Your task to perform on an android device: add a contact in the contacts app Image 0: 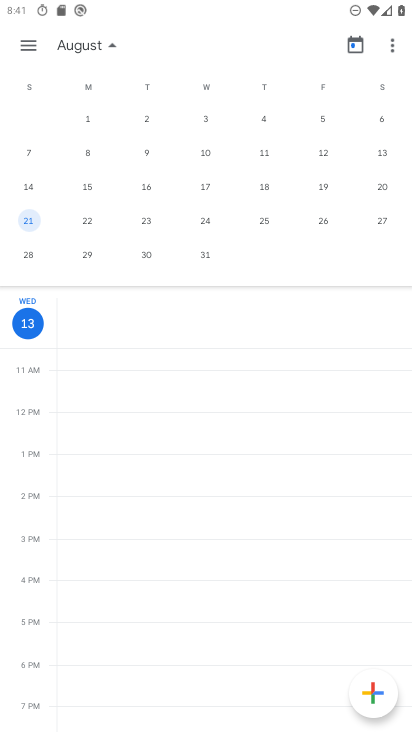
Step 0: press home button
Your task to perform on an android device: add a contact in the contacts app Image 1: 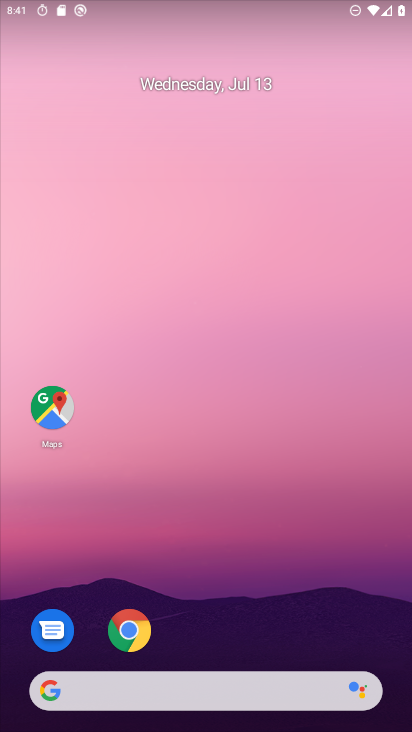
Step 1: drag from (381, 660) to (125, 69)
Your task to perform on an android device: add a contact in the contacts app Image 2: 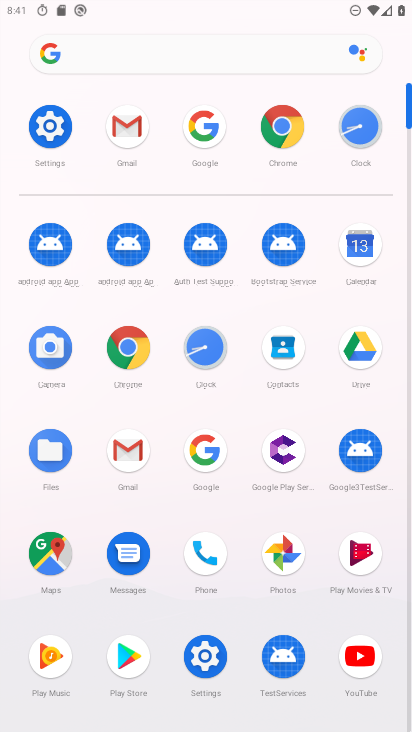
Step 2: click (296, 348)
Your task to perform on an android device: add a contact in the contacts app Image 3: 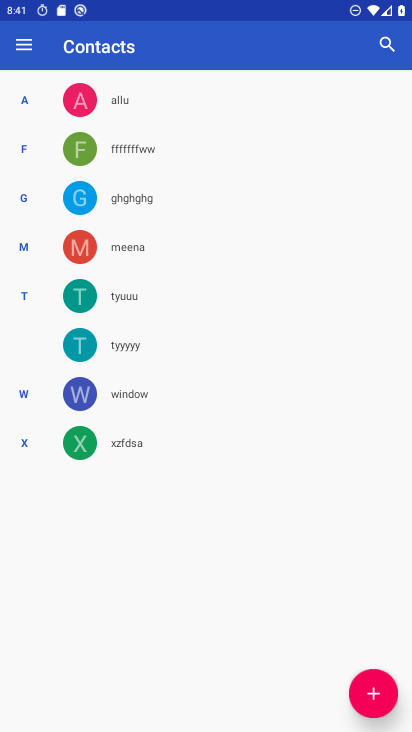
Step 3: click (370, 690)
Your task to perform on an android device: add a contact in the contacts app Image 4: 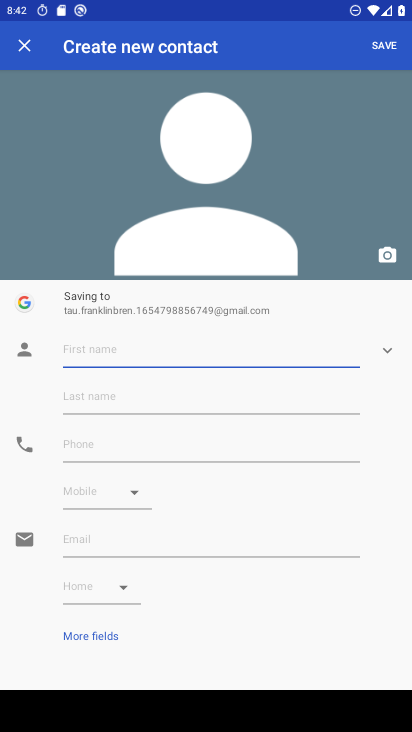
Step 4: type "mainsha"
Your task to perform on an android device: add a contact in the contacts app Image 5: 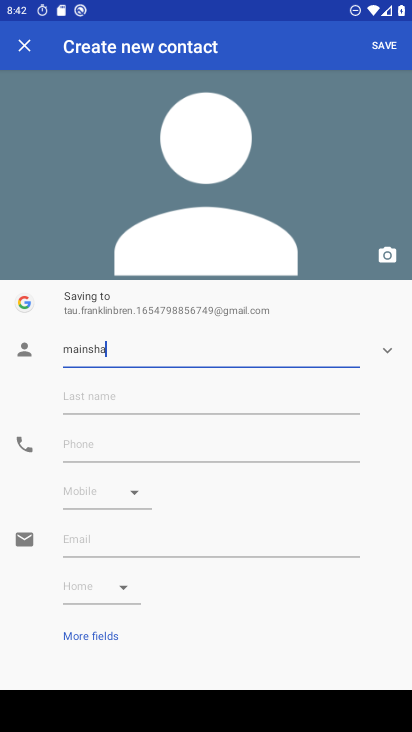
Step 5: click (379, 45)
Your task to perform on an android device: add a contact in the contacts app Image 6: 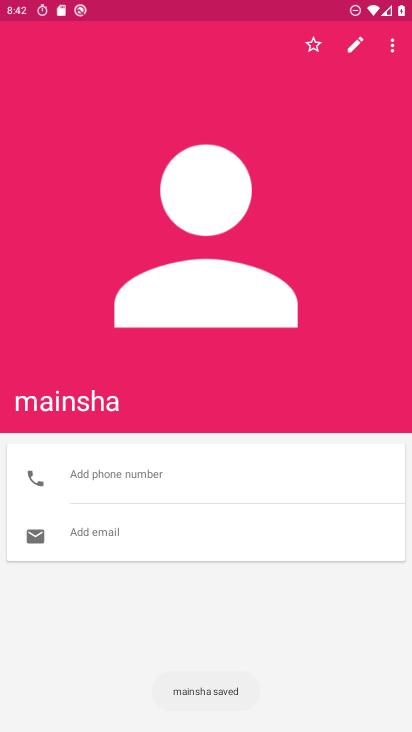
Step 6: task complete